Your task to perform on an android device: show emergency info Image 0: 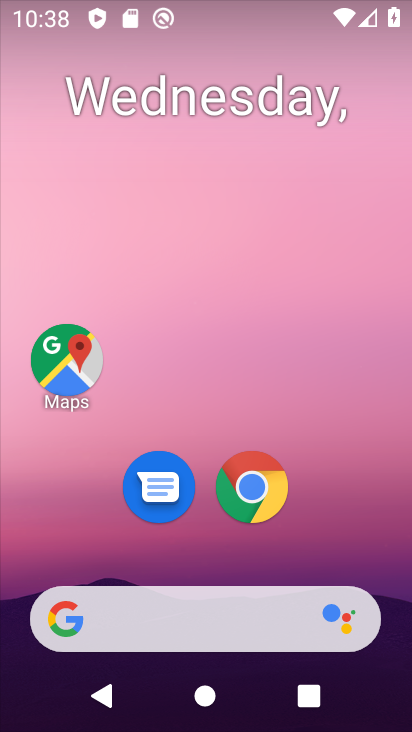
Step 0: drag from (369, 537) to (308, 159)
Your task to perform on an android device: show emergency info Image 1: 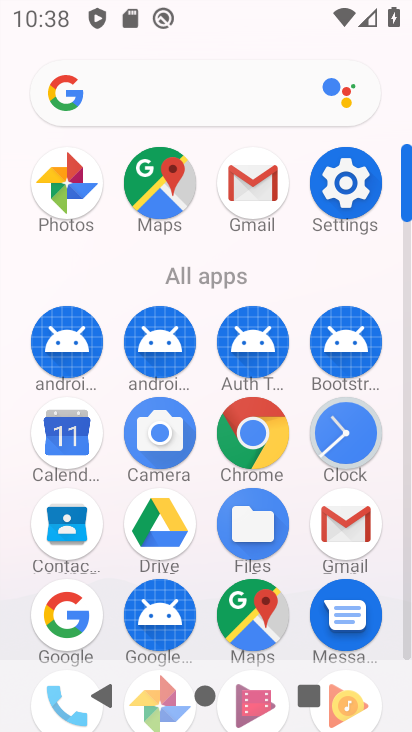
Step 1: click (345, 201)
Your task to perform on an android device: show emergency info Image 2: 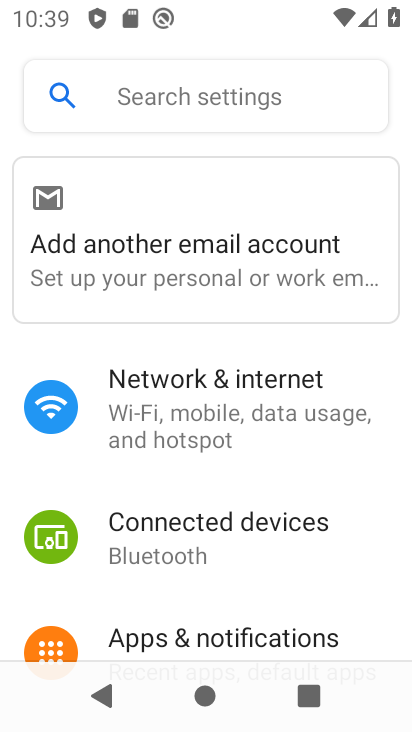
Step 2: drag from (323, 553) to (205, 103)
Your task to perform on an android device: show emergency info Image 3: 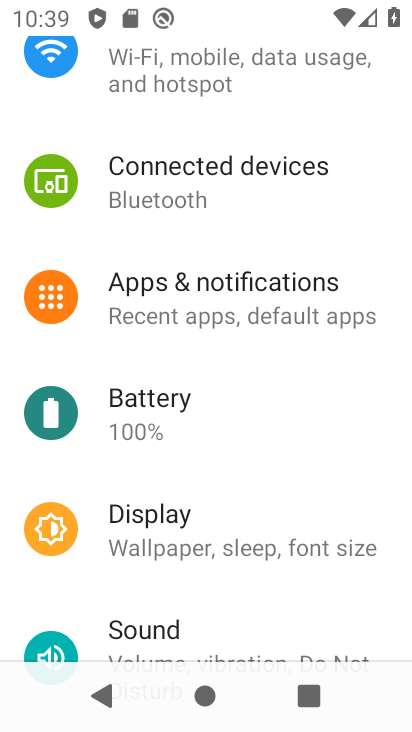
Step 3: drag from (308, 578) to (214, 169)
Your task to perform on an android device: show emergency info Image 4: 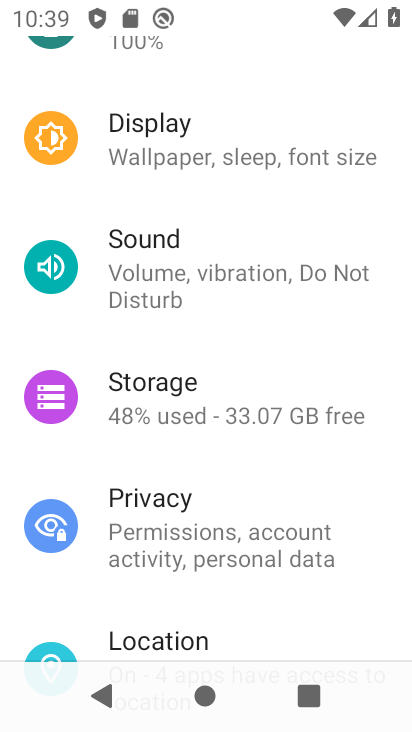
Step 4: drag from (297, 529) to (203, 133)
Your task to perform on an android device: show emergency info Image 5: 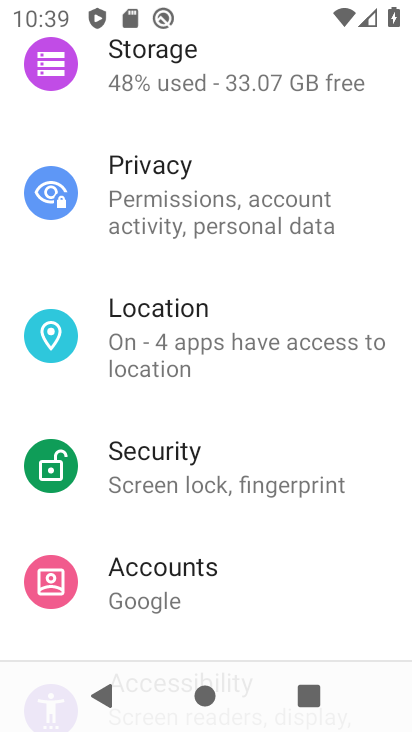
Step 5: drag from (273, 540) to (172, 149)
Your task to perform on an android device: show emergency info Image 6: 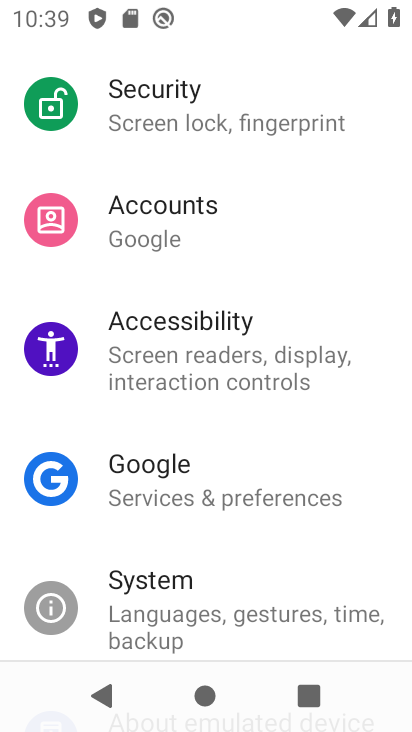
Step 6: drag from (279, 504) to (211, 119)
Your task to perform on an android device: show emergency info Image 7: 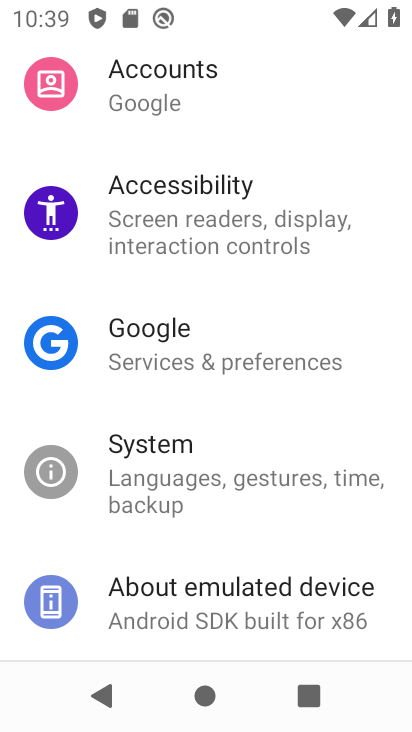
Step 7: click (157, 592)
Your task to perform on an android device: show emergency info Image 8: 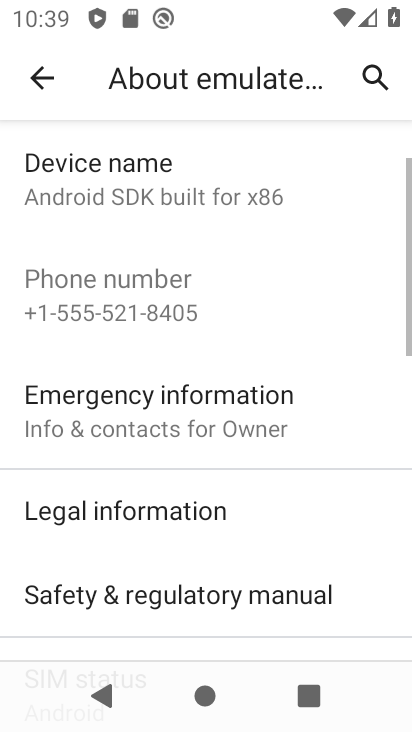
Step 8: click (225, 397)
Your task to perform on an android device: show emergency info Image 9: 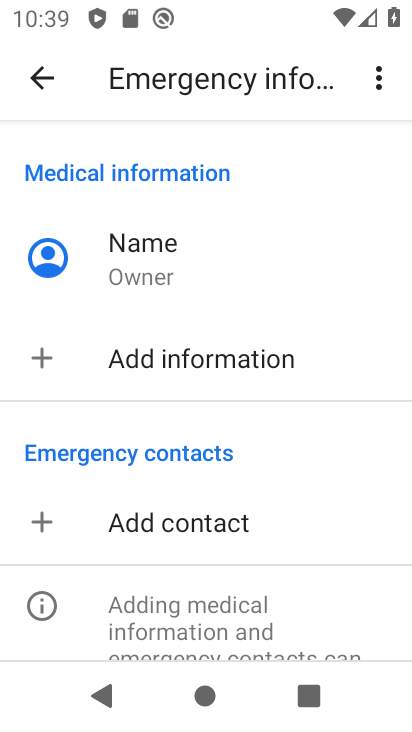
Step 9: task complete